Your task to perform on an android device: Open the calculator Image 0: 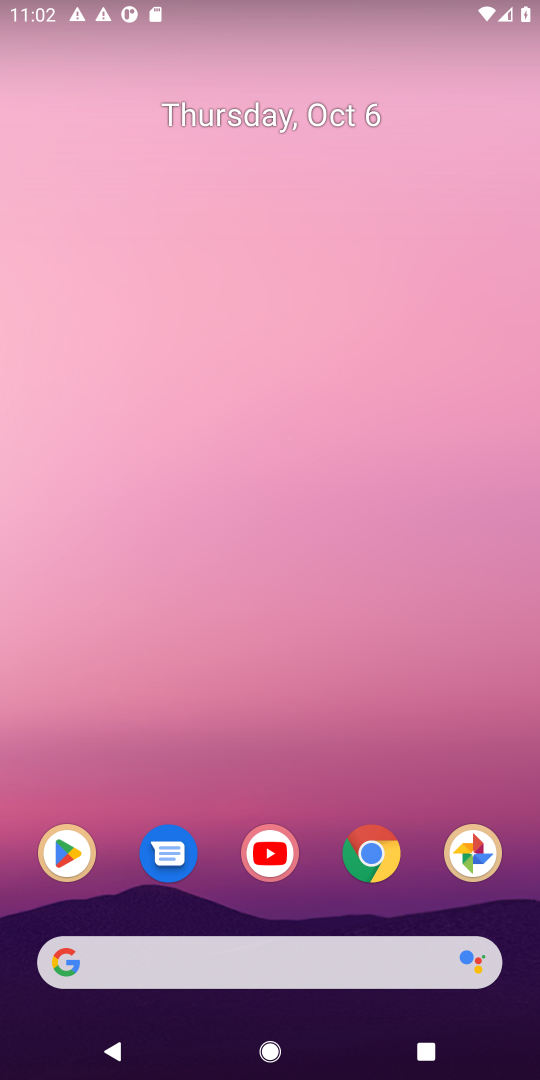
Step 0: drag from (299, 946) to (333, 382)
Your task to perform on an android device: Open the calculator Image 1: 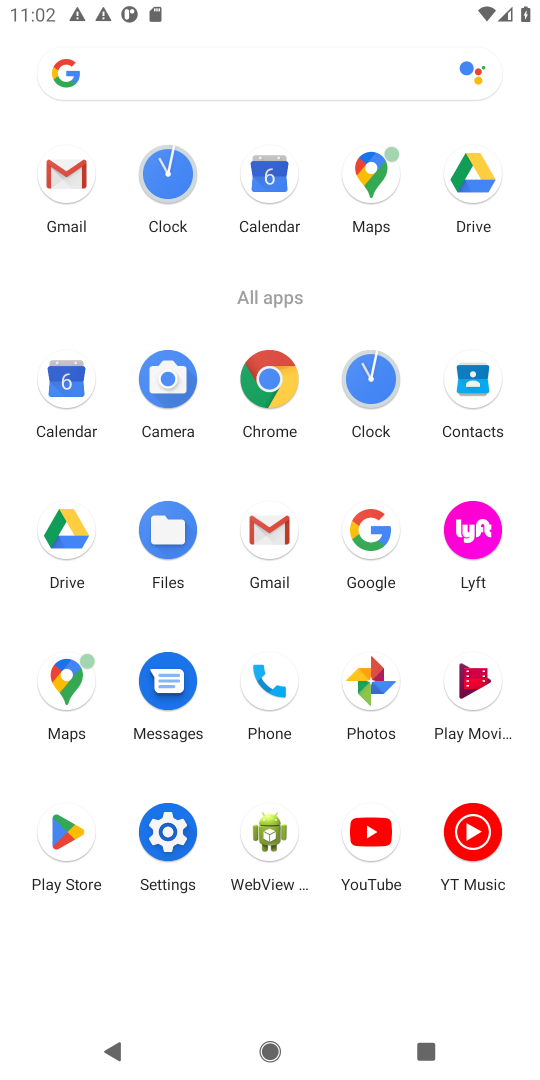
Step 1: drag from (237, 730) to (258, 408)
Your task to perform on an android device: Open the calculator Image 2: 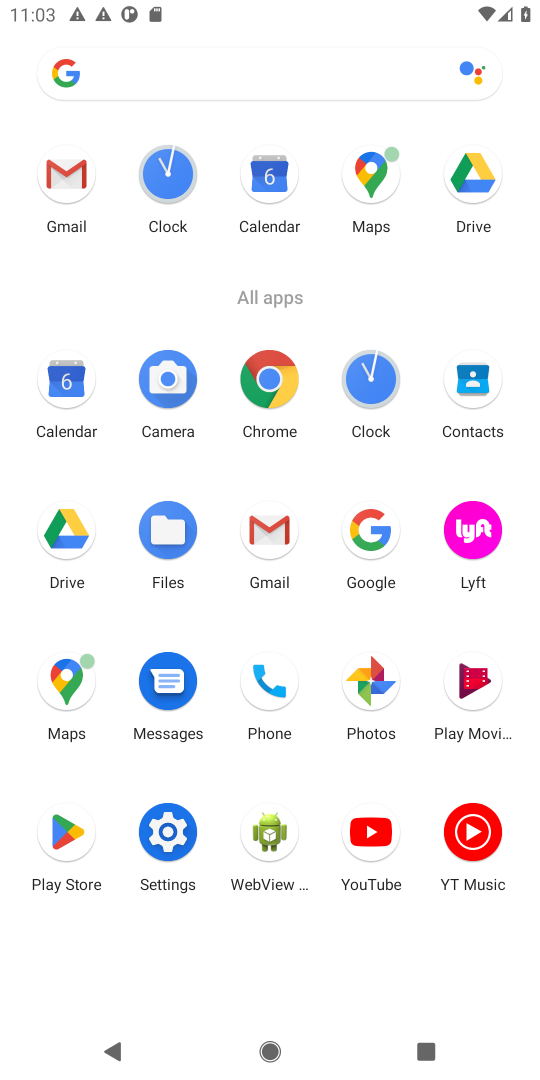
Step 2: drag from (349, 734) to (364, 581)
Your task to perform on an android device: Open the calculator Image 3: 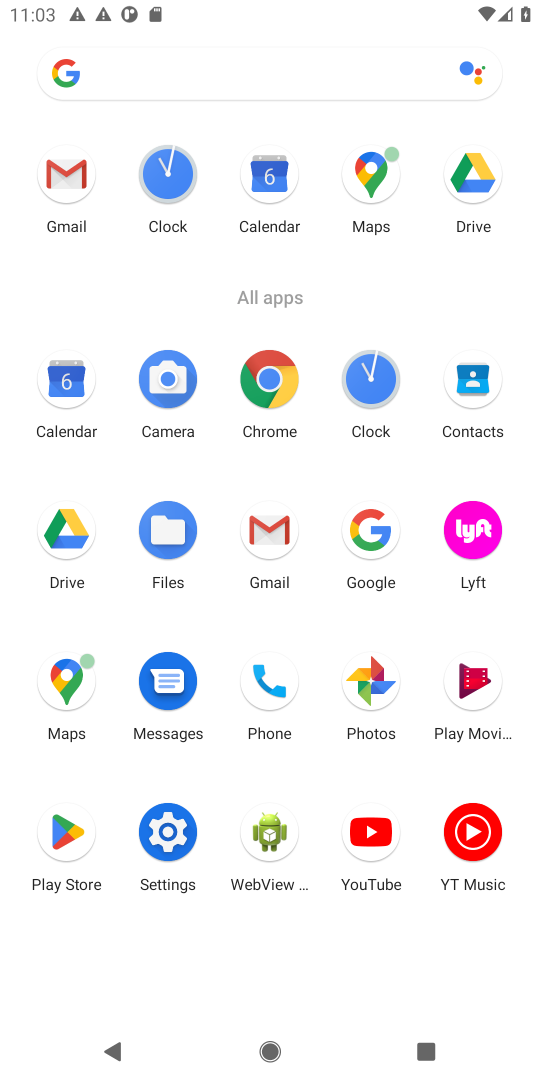
Step 3: click (176, 83)
Your task to perform on an android device: Open the calculator Image 4: 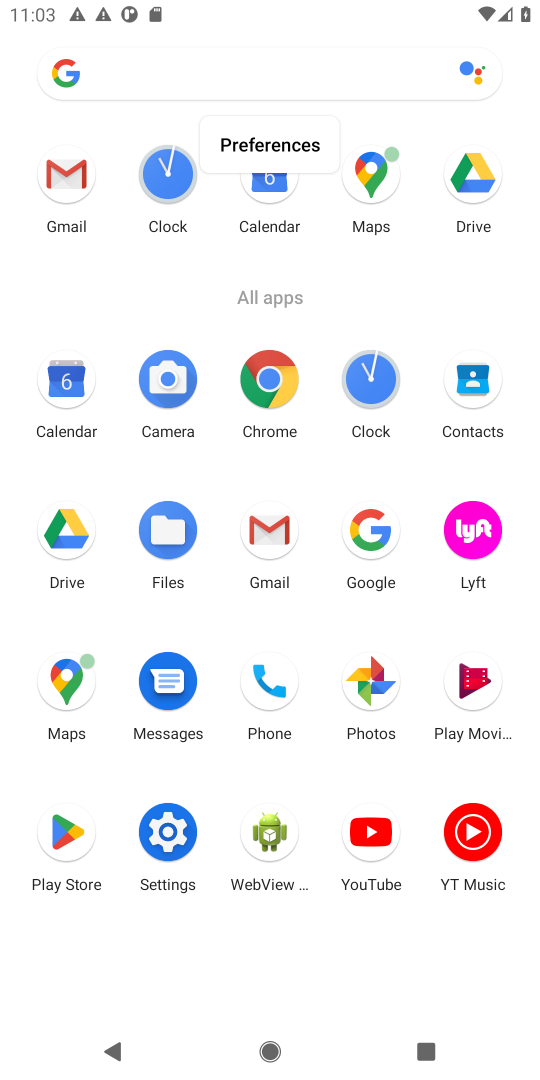
Step 4: click (262, 290)
Your task to perform on an android device: Open the calculator Image 5: 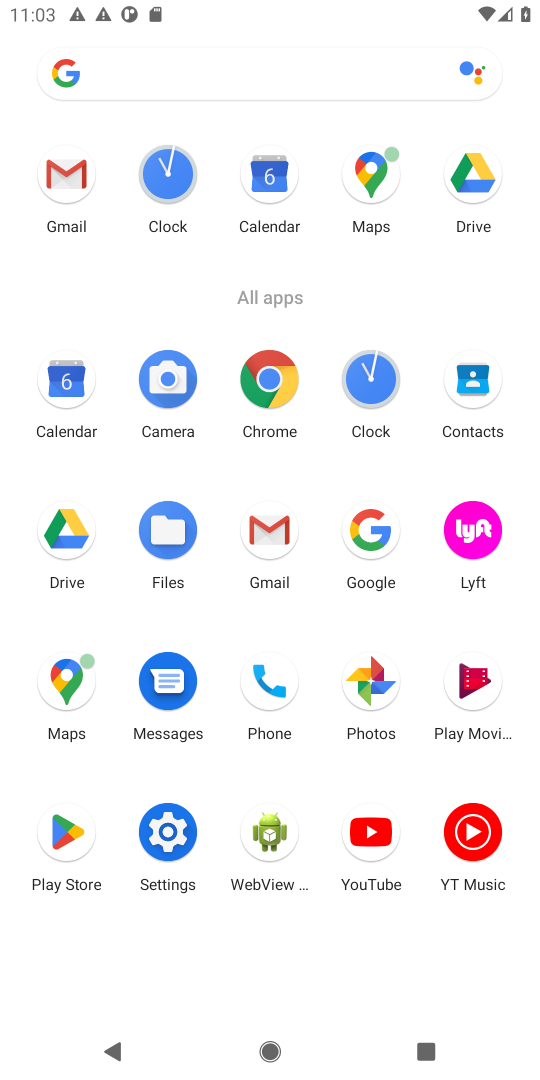
Step 5: click (100, 67)
Your task to perform on an android device: Open the calculator Image 6: 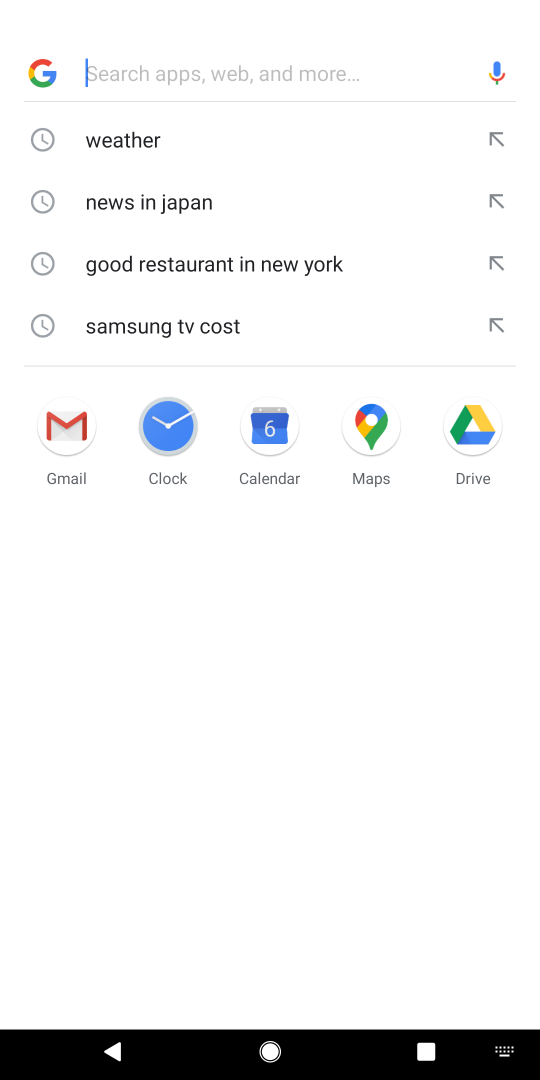
Step 6: click (122, 69)
Your task to perform on an android device: Open the calculator Image 7: 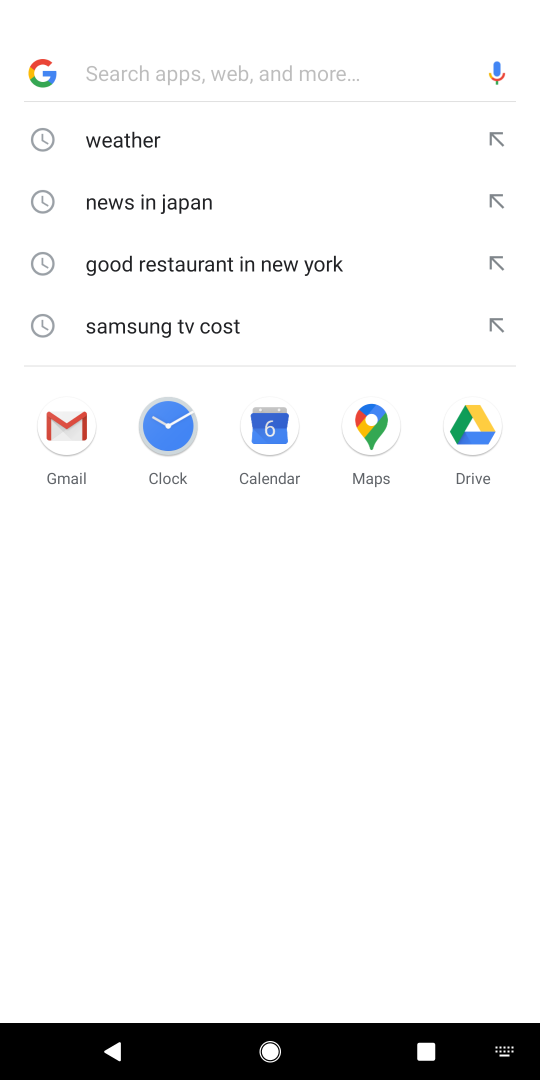
Step 7: click (122, 69)
Your task to perform on an android device: Open the calculator Image 8: 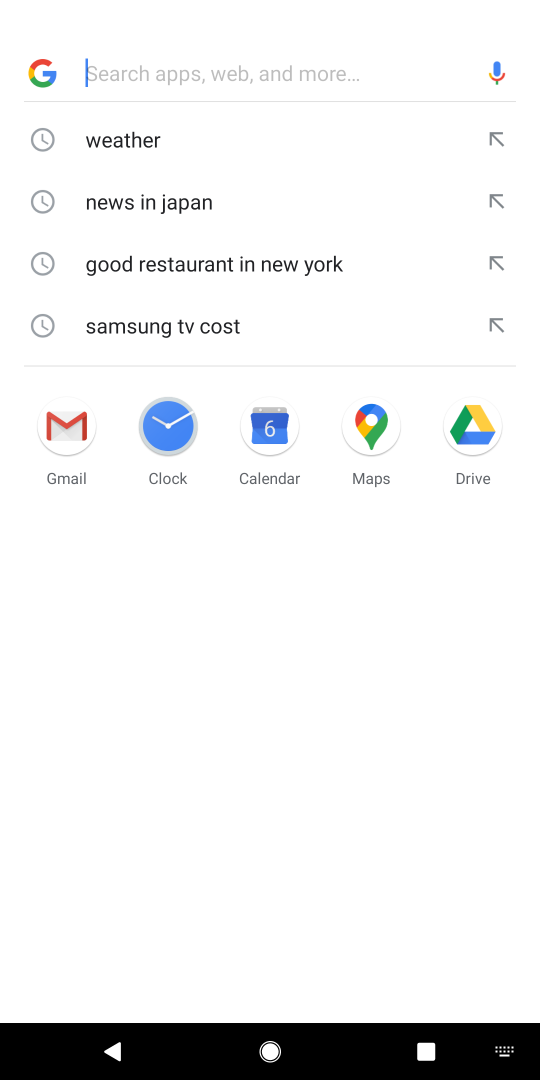
Step 8: type "calculator"
Your task to perform on an android device: Open the calculator Image 9: 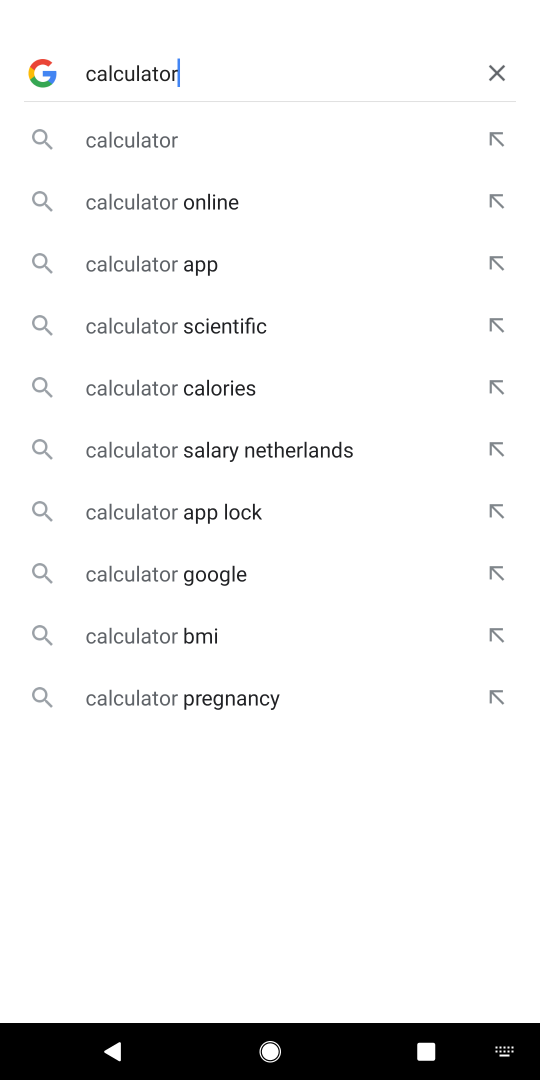
Step 9: click (148, 136)
Your task to perform on an android device: Open the calculator Image 10: 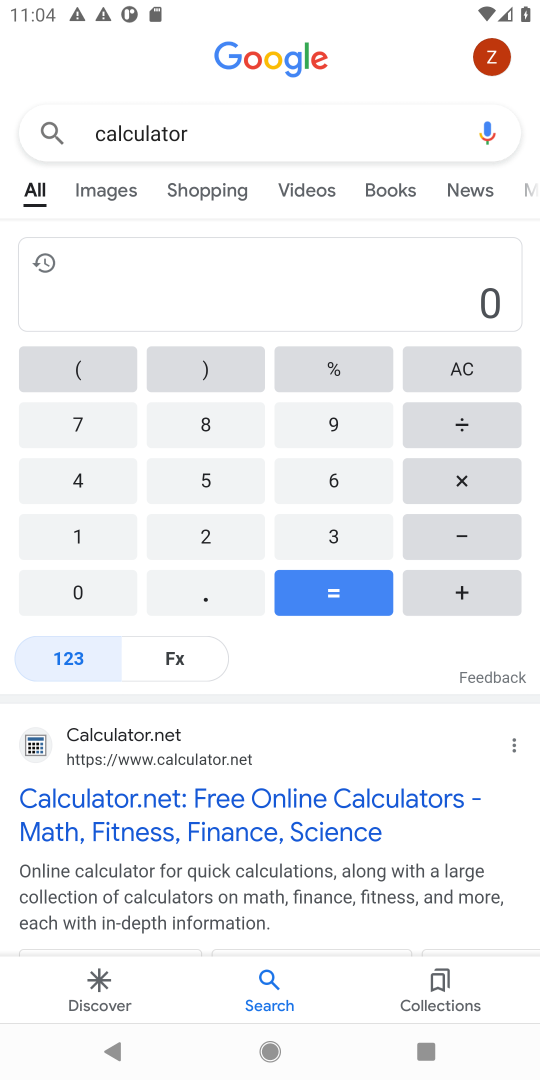
Step 10: task complete